Your task to perform on an android device: turn off smart reply in the gmail app Image 0: 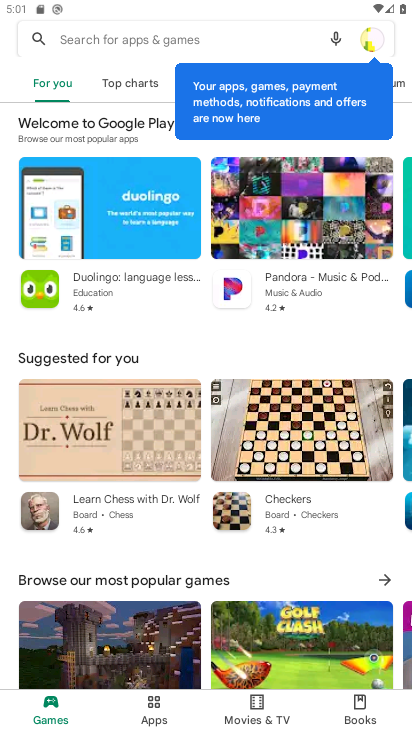
Step 0: press home button
Your task to perform on an android device: turn off smart reply in the gmail app Image 1: 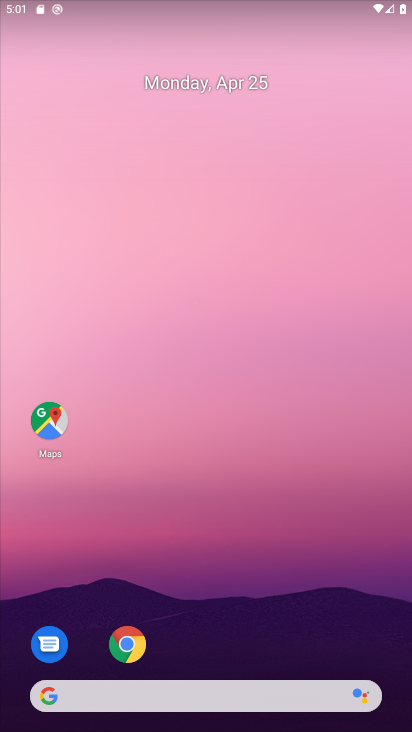
Step 1: drag from (212, 625) to (86, 125)
Your task to perform on an android device: turn off smart reply in the gmail app Image 2: 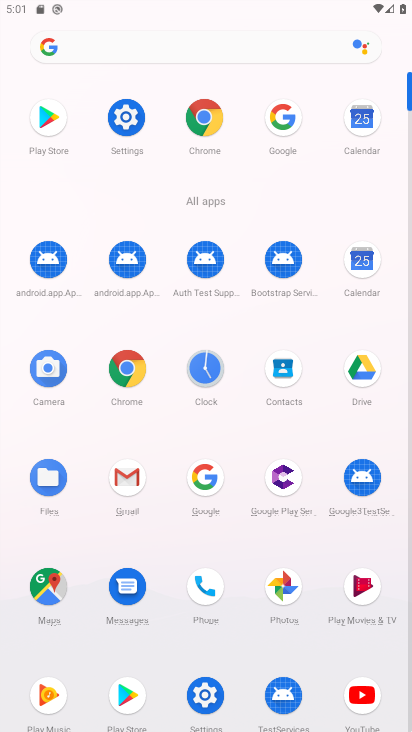
Step 2: click (119, 474)
Your task to perform on an android device: turn off smart reply in the gmail app Image 3: 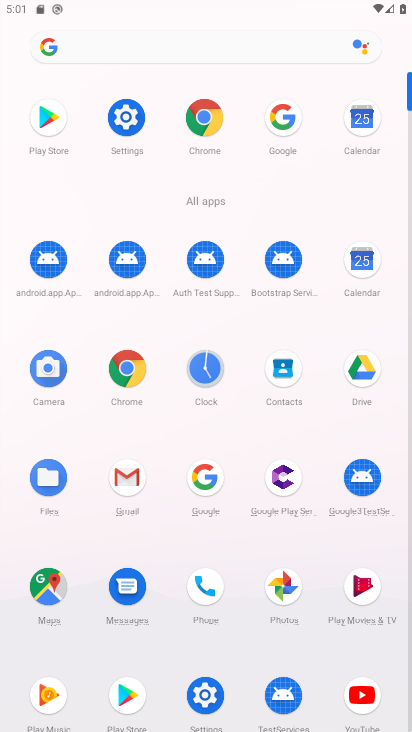
Step 3: click (119, 474)
Your task to perform on an android device: turn off smart reply in the gmail app Image 4: 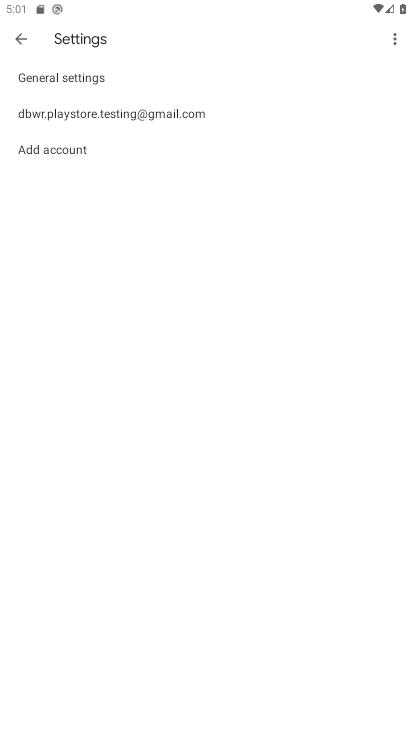
Step 4: click (107, 112)
Your task to perform on an android device: turn off smart reply in the gmail app Image 5: 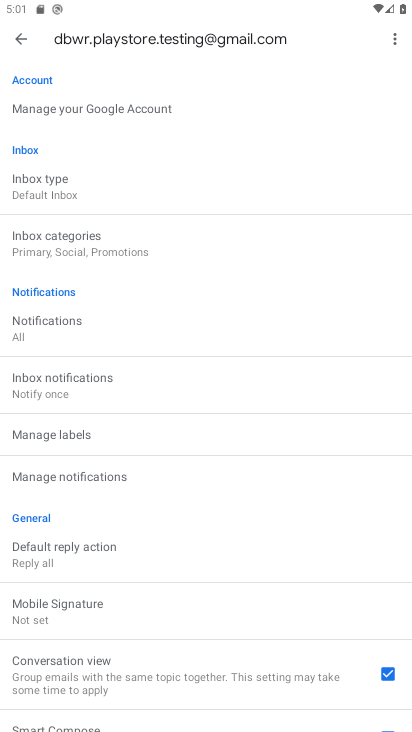
Step 5: drag from (179, 665) to (203, 328)
Your task to perform on an android device: turn off smart reply in the gmail app Image 6: 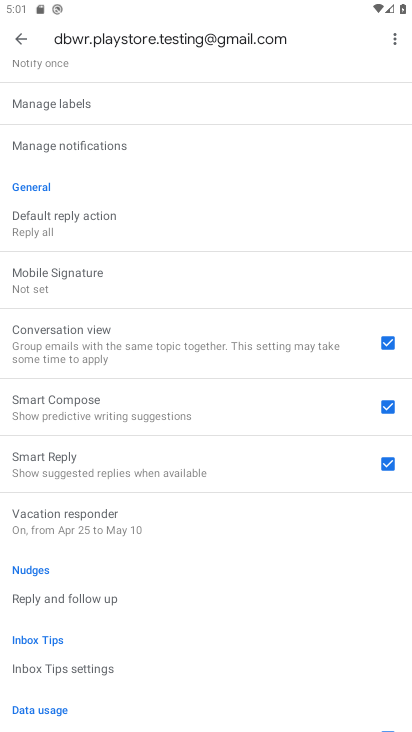
Step 6: click (385, 461)
Your task to perform on an android device: turn off smart reply in the gmail app Image 7: 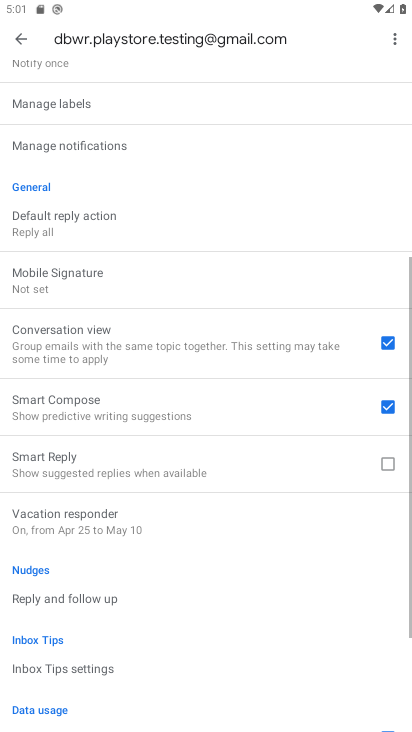
Step 7: task complete